Your task to perform on an android device: turn on bluetooth scan Image 0: 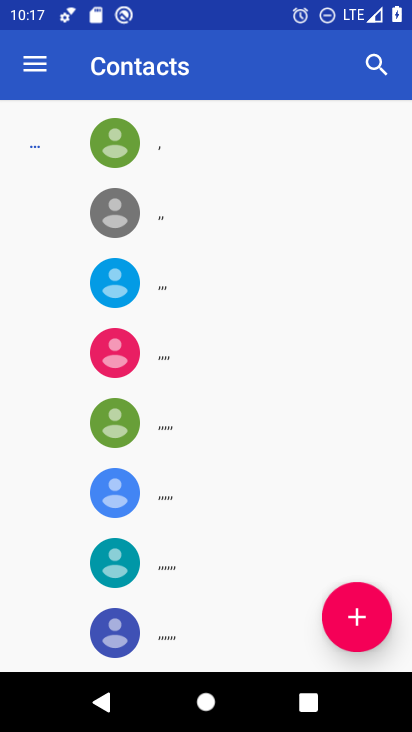
Step 0: press home button
Your task to perform on an android device: turn on bluetooth scan Image 1: 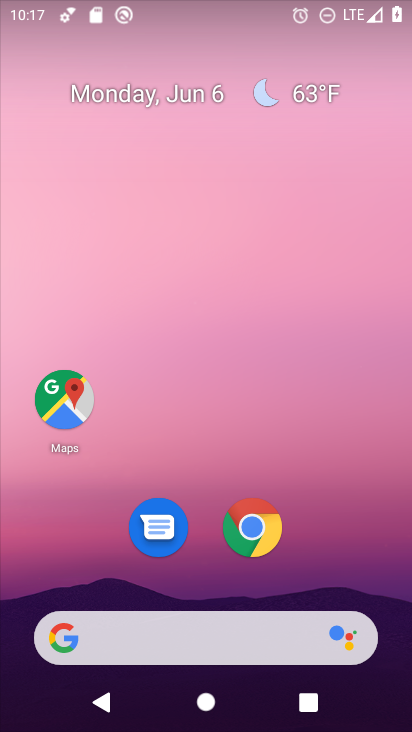
Step 1: drag from (349, 557) to (340, 177)
Your task to perform on an android device: turn on bluetooth scan Image 2: 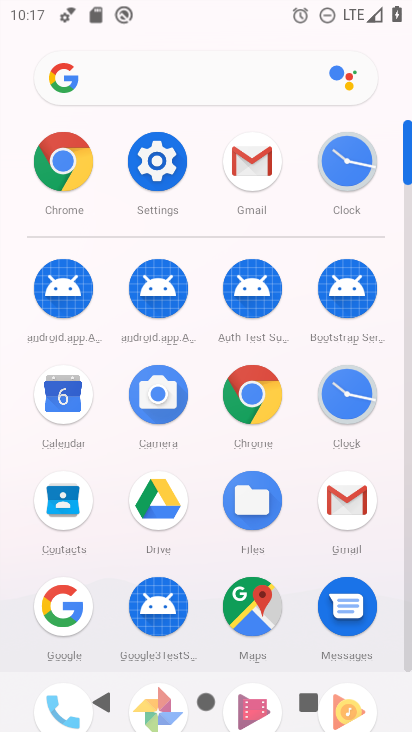
Step 2: click (163, 157)
Your task to perform on an android device: turn on bluetooth scan Image 3: 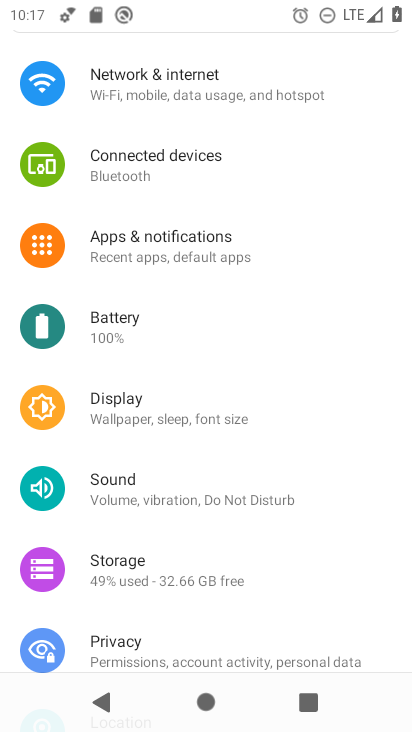
Step 3: drag from (331, 214) to (337, 333)
Your task to perform on an android device: turn on bluetooth scan Image 4: 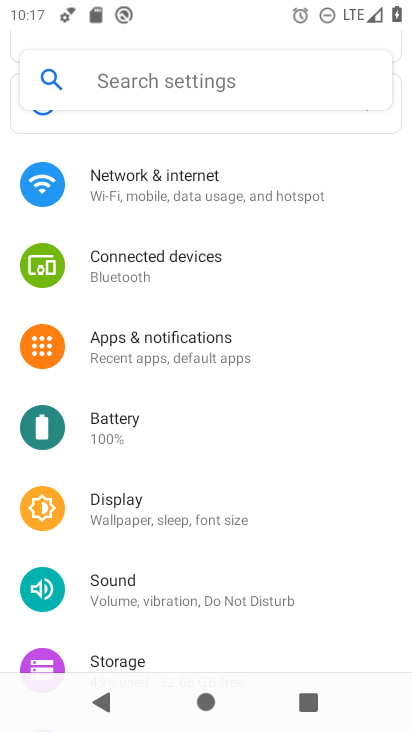
Step 4: drag from (330, 179) to (325, 506)
Your task to perform on an android device: turn on bluetooth scan Image 5: 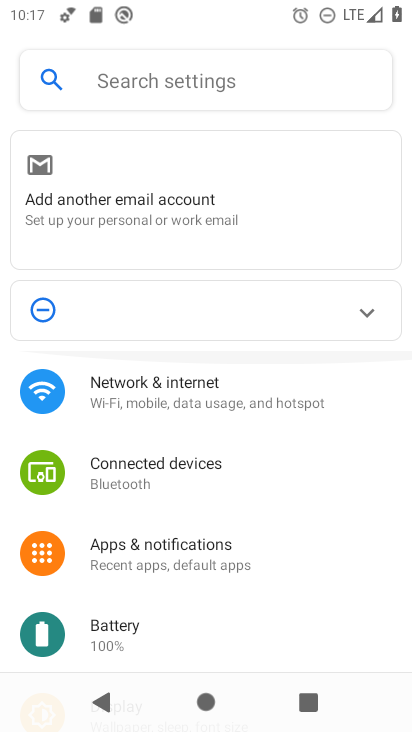
Step 5: drag from (324, 529) to (327, 401)
Your task to perform on an android device: turn on bluetooth scan Image 6: 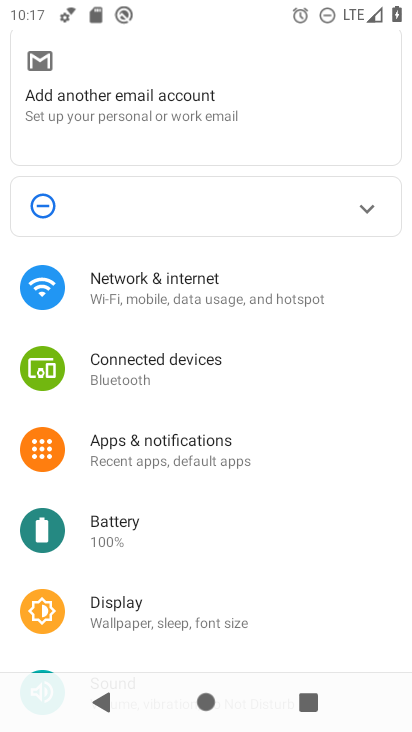
Step 6: drag from (346, 509) to (336, 348)
Your task to perform on an android device: turn on bluetooth scan Image 7: 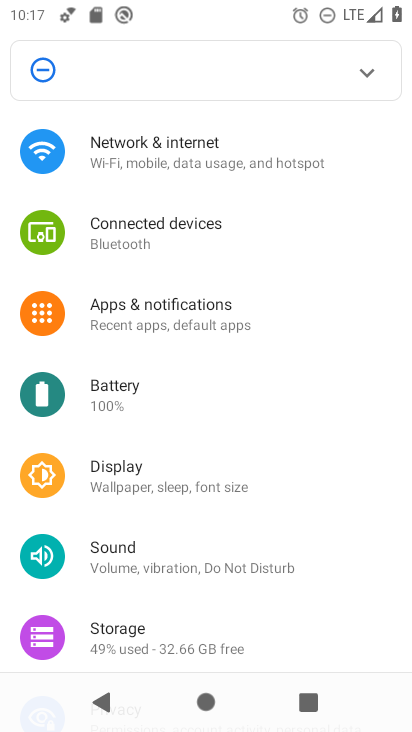
Step 7: drag from (354, 559) to (360, 409)
Your task to perform on an android device: turn on bluetooth scan Image 8: 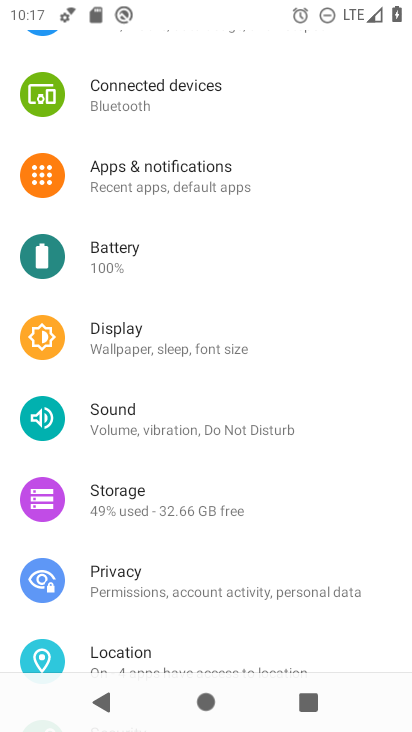
Step 8: drag from (306, 599) to (320, 460)
Your task to perform on an android device: turn on bluetooth scan Image 9: 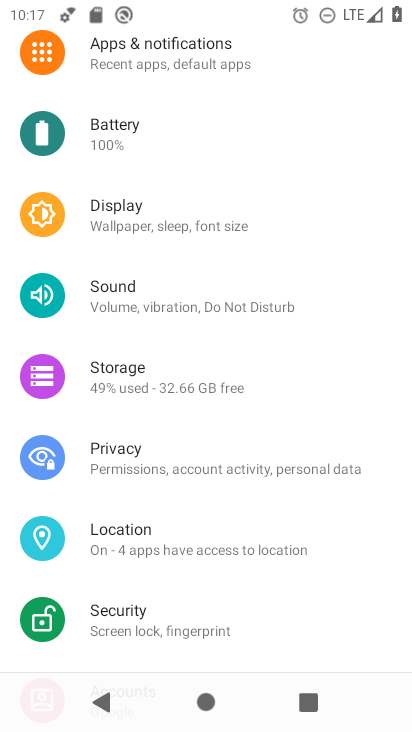
Step 9: click (244, 544)
Your task to perform on an android device: turn on bluetooth scan Image 10: 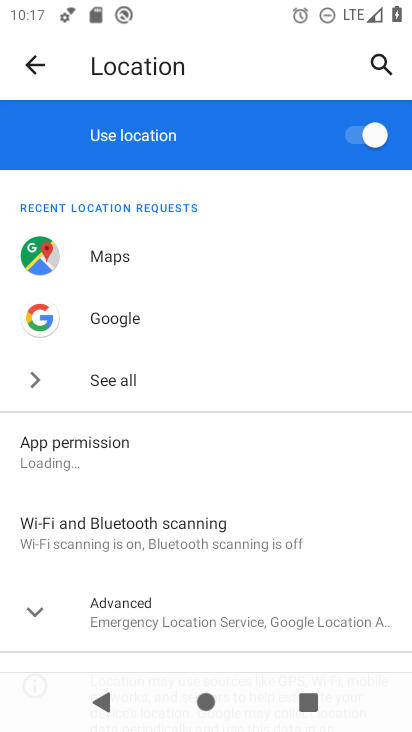
Step 10: drag from (245, 561) to (266, 375)
Your task to perform on an android device: turn on bluetooth scan Image 11: 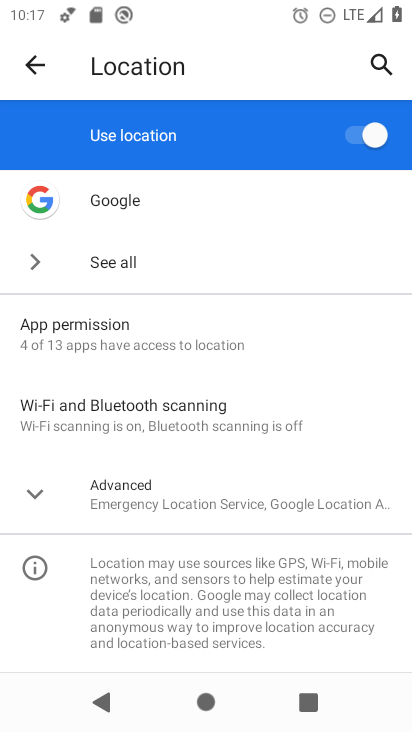
Step 11: click (196, 414)
Your task to perform on an android device: turn on bluetooth scan Image 12: 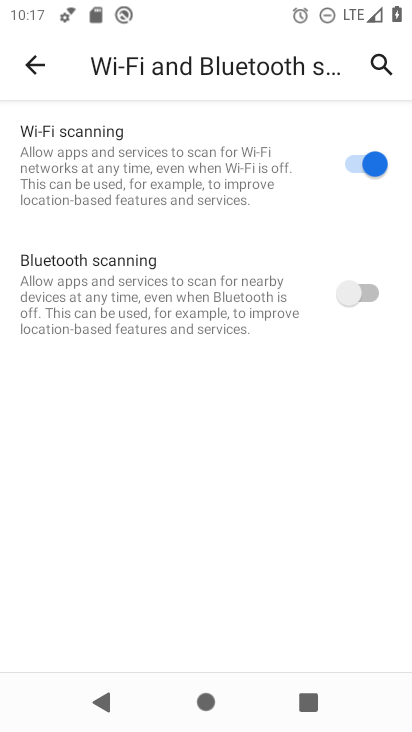
Step 12: click (357, 304)
Your task to perform on an android device: turn on bluetooth scan Image 13: 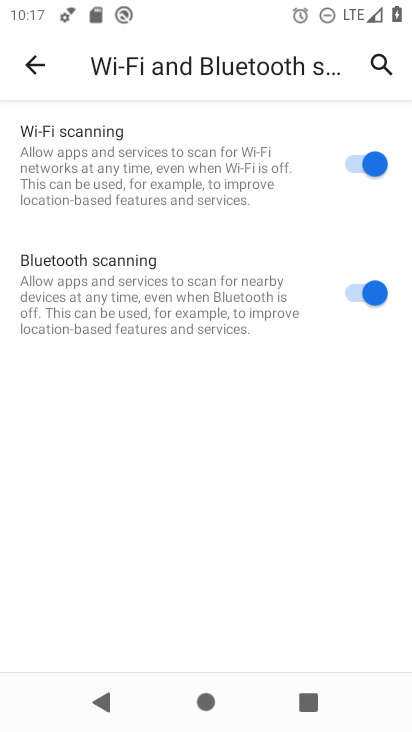
Step 13: task complete